Your task to perform on an android device: delete the emails in spam in the gmail app Image 0: 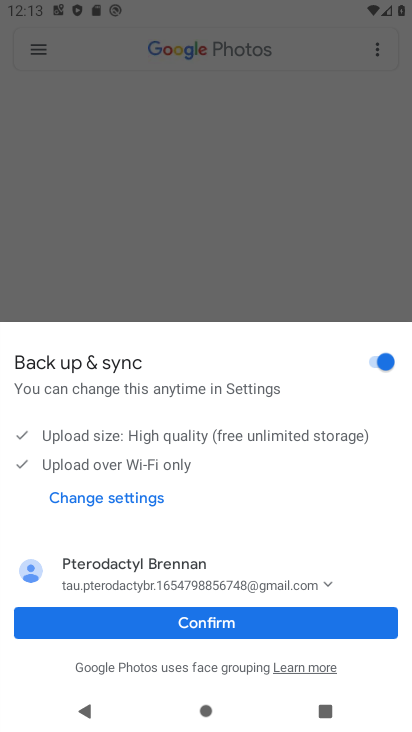
Step 0: press home button
Your task to perform on an android device: delete the emails in spam in the gmail app Image 1: 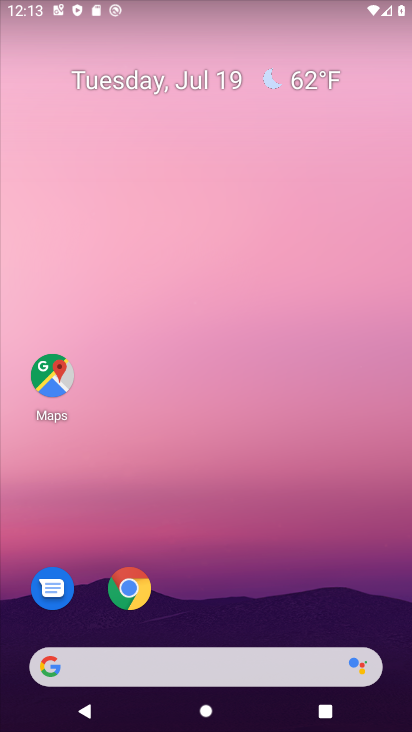
Step 1: drag from (282, 534) to (288, 2)
Your task to perform on an android device: delete the emails in spam in the gmail app Image 2: 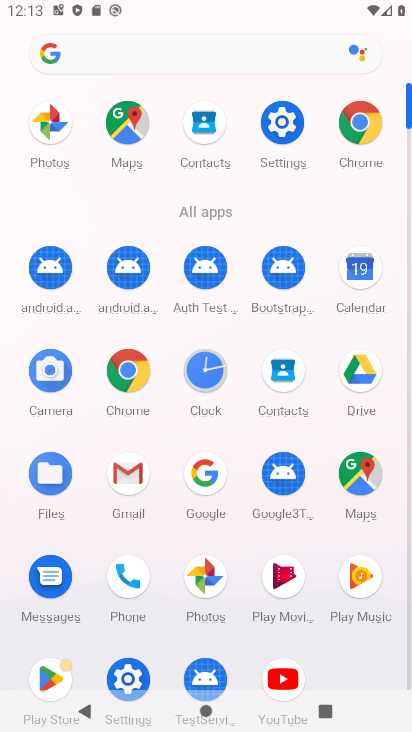
Step 2: click (133, 480)
Your task to perform on an android device: delete the emails in spam in the gmail app Image 3: 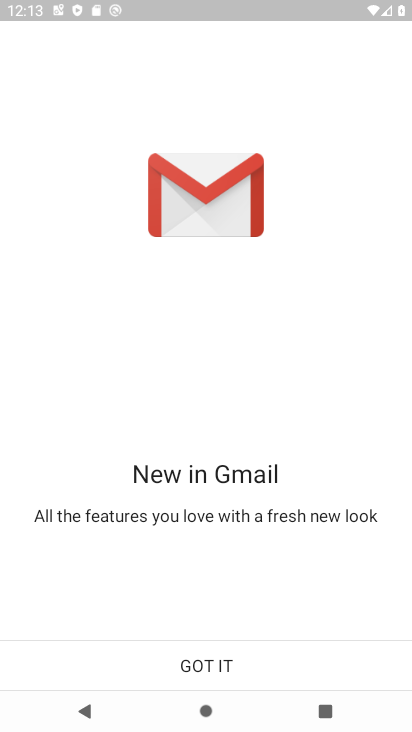
Step 3: click (249, 673)
Your task to perform on an android device: delete the emails in spam in the gmail app Image 4: 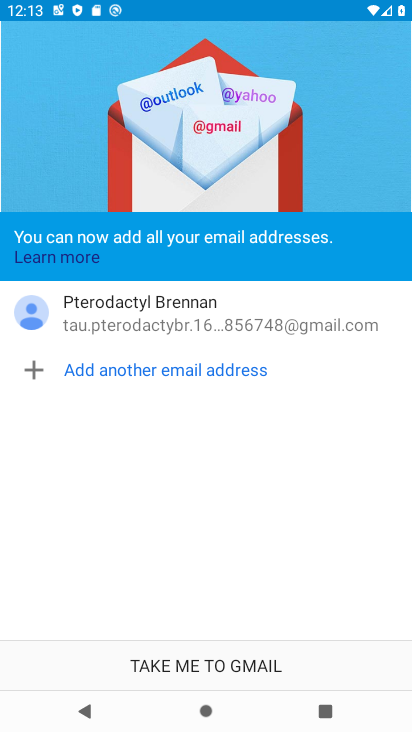
Step 4: click (249, 673)
Your task to perform on an android device: delete the emails in spam in the gmail app Image 5: 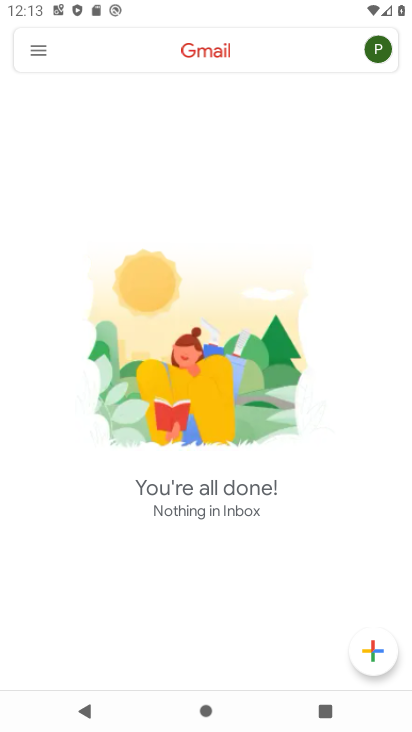
Step 5: click (41, 55)
Your task to perform on an android device: delete the emails in spam in the gmail app Image 6: 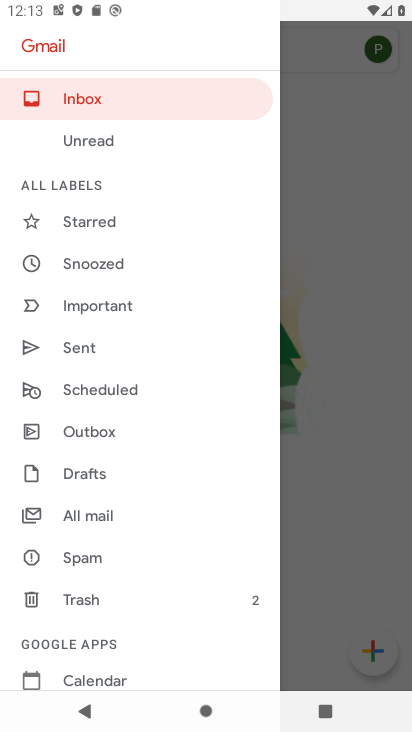
Step 6: click (136, 563)
Your task to perform on an android device: delete the emails in spam in the gmail app Image 7: 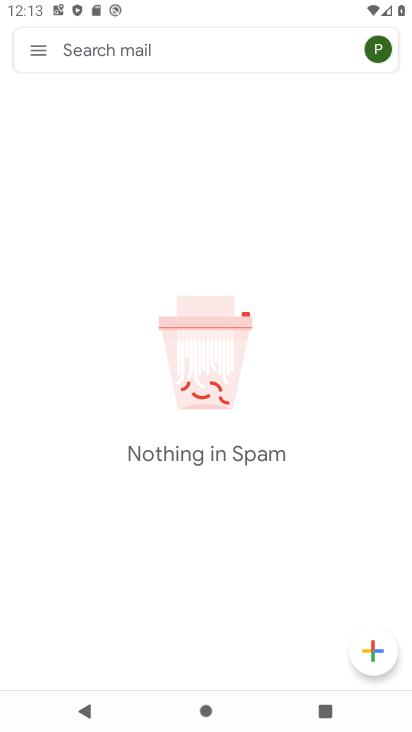
Step 7: task complete